Your task to perform on an android device: turn off priority inbox in the gmail app Image 0: 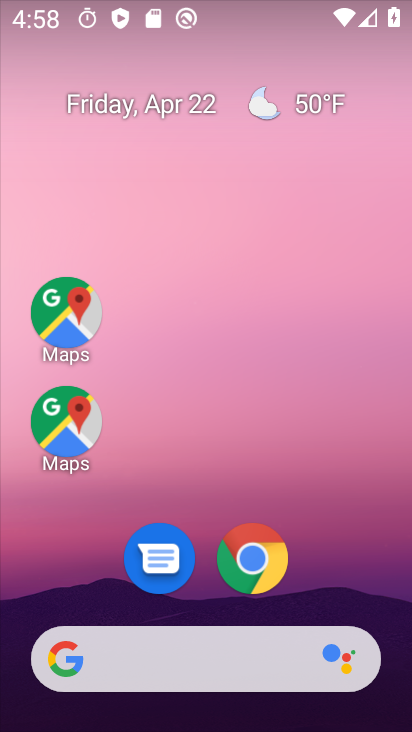
Step 0: drag from (352, 596) to (234, 146)
Your task to perform on an android device: turn off priority inbox in the gmail app Image 1: 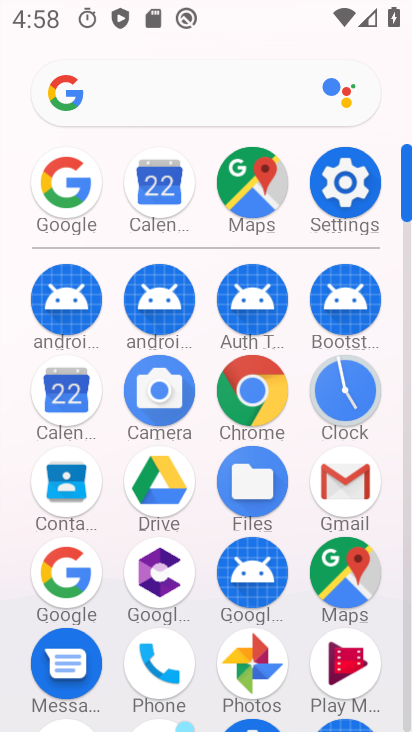
Step 1: click (361, 483)
Your task to perform on an android device: turn off priority inbox in the gmail app Image 2: 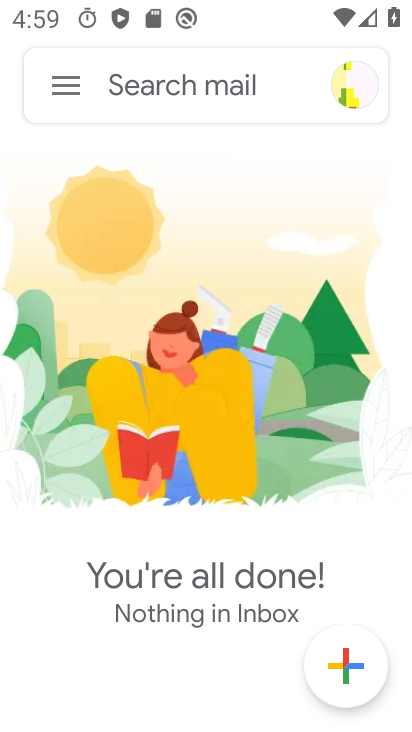
Step 2: click (71, 89)
Your task to perform on an android device: turn off priority inbox in the gmail app Image 3: 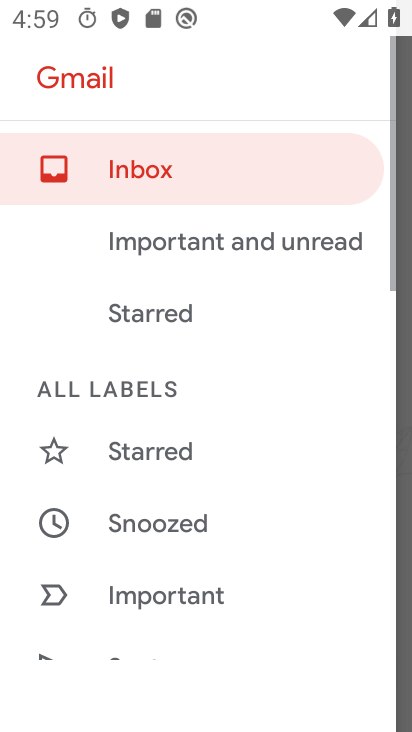
Step 3: drag from (258, 584) to (241, 172)
Your task to perform on an android device: turn off priority inbox in the gmail app Image 4: 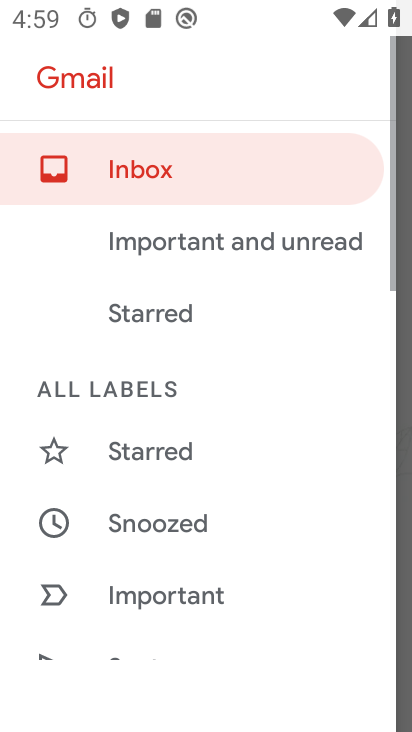
Step 4: drag from (181, 556) to (271, 113)
Your task to perform on an android device: turn off priority inbox in the gmail app Image 5: 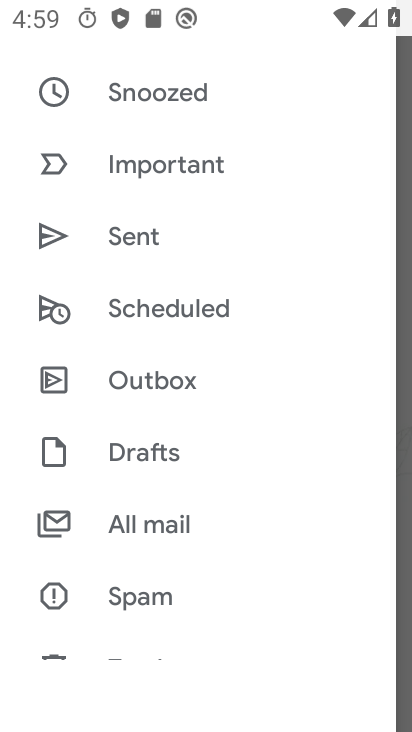
Step 5: drag from (207, 529) to (291, 85)
Your task to perform on an android device: turn off priority inbox in the gmail app Image 6: 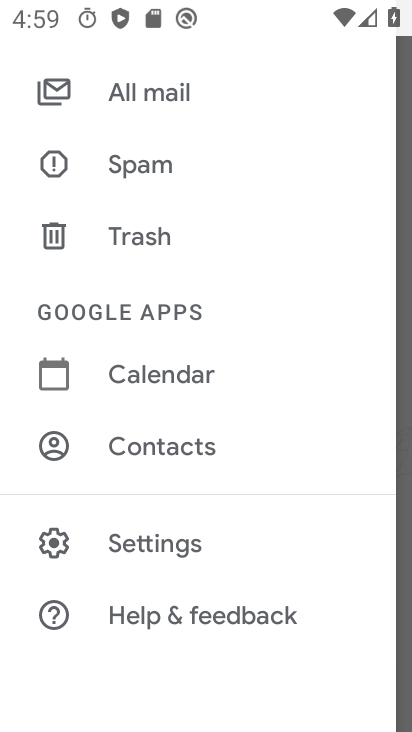
Step 6: click (171, 545)
Your task to perform on an android device: turn off priority inbox in the gmail app Image 7: 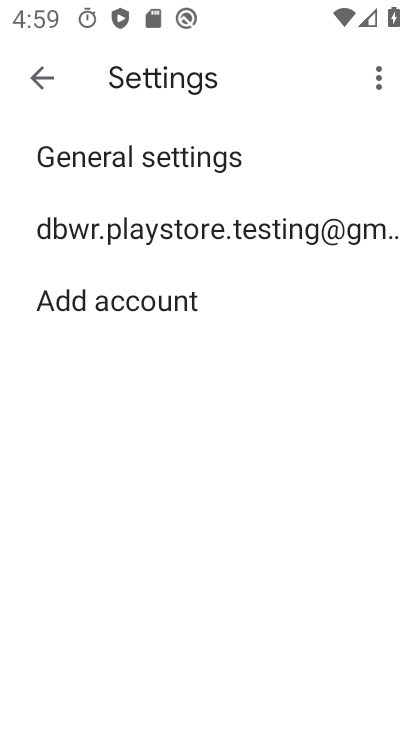
Step 7: click (125, 221)
Your task to perform on an android device: turn off priority inbox in the gmail app Image 8: 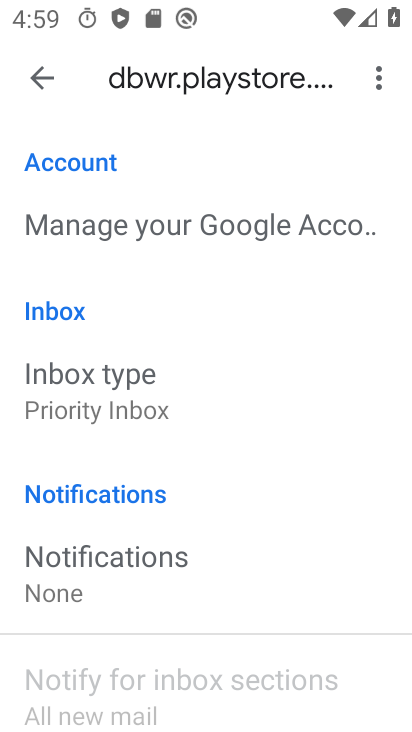
Step 8: drag from (249, 593) to (241, 265)
Your task to perform on an android device: turn off priority inbox in the gmail app Image 9: 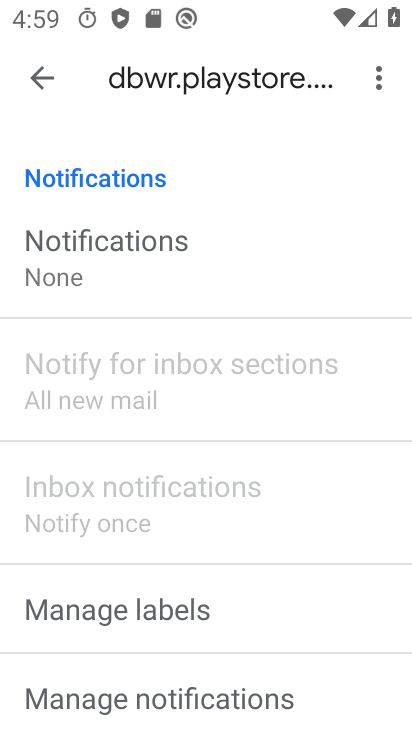
Step 9: drag from (222, 591) to (244, 278)
Your task to perform on an android device: turn off priority inbox in the gmail app Image 10: 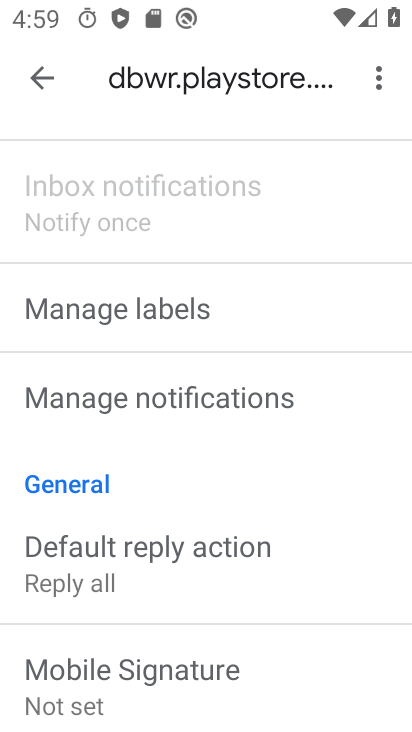
Step 10: drag from (256, 358) to (265, 306)
Your task to perform on an android device: turn off priority inbox in the gmail app Image 11: 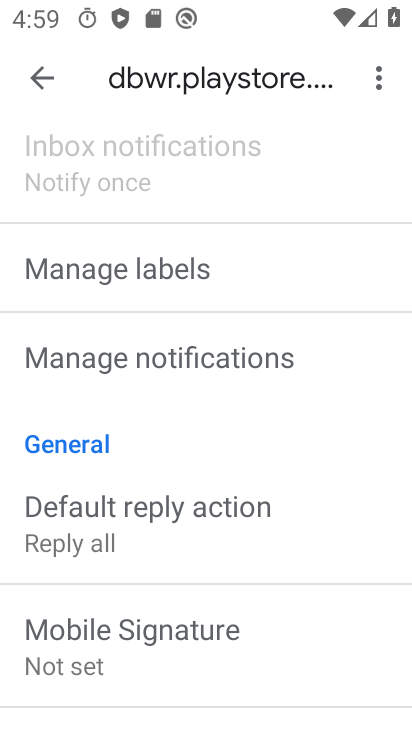
Step 11: drag from (243, 625) to (248, 379)
Your task to perform on an android device: turn off priority inbox in the gmail app Image 12: 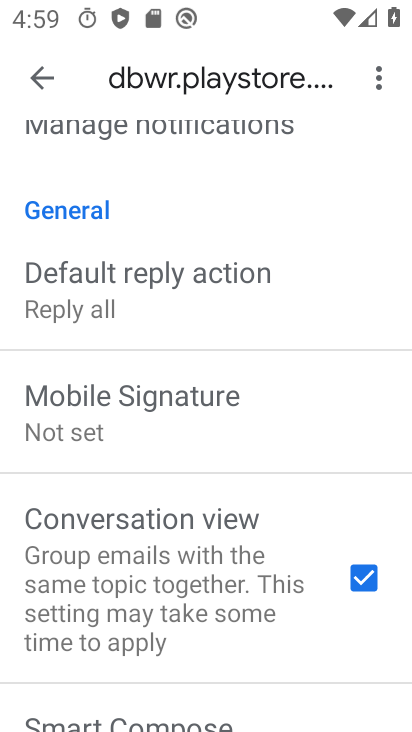
Step 12: drag from (276, 205) to (245, 614)
Your task to perform on an android device: turn off priority inbox in the gmail app Image 13: 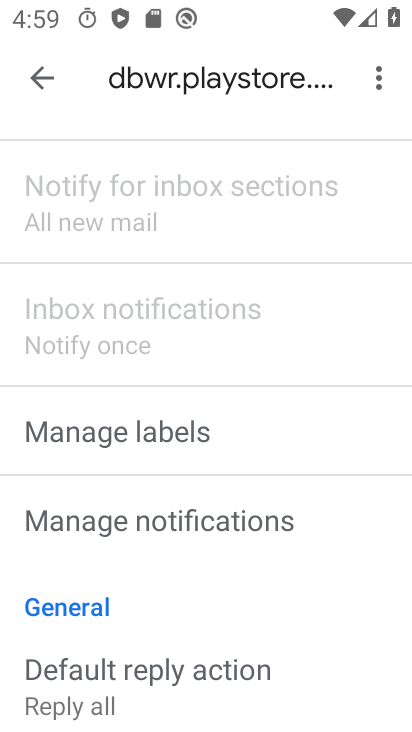
Step 13: drag from (249, 319) to (205, 659)
Your task to perform on an android device: turn off priority inbox in the gmail app Image 14: 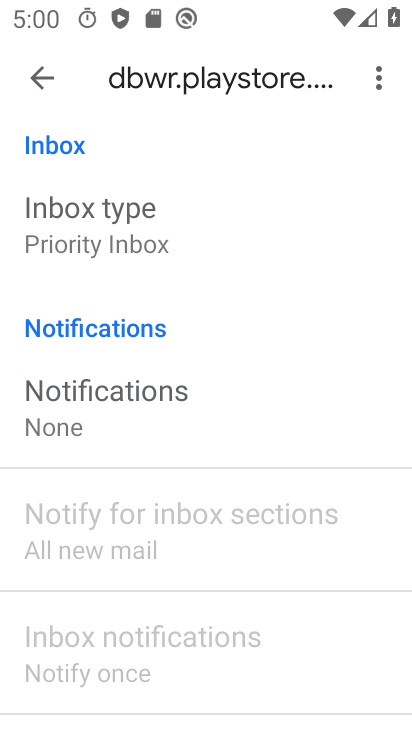
Step 14: click (93, 231)
Your task to perform on an android device: turn off priority inbox in the gmail app Image 15: 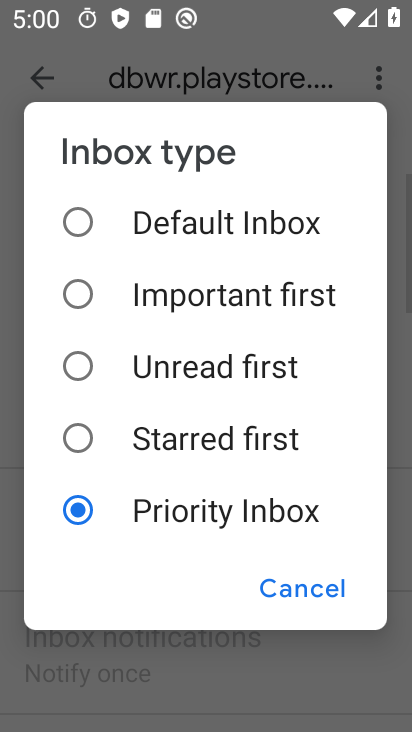
Step 15: click (62, 219)
Your task to perform on an android device: turn off priority inbox in the gmail app Image 16: 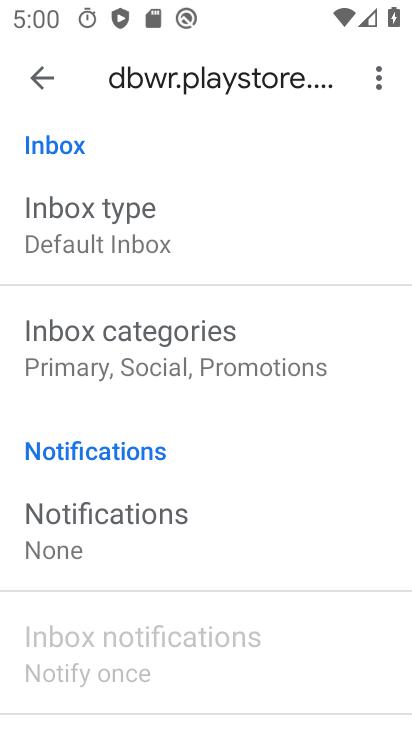
Step 16: task complete